Your task to perform on an android device: toggle javascript in the chrome app Image 0: 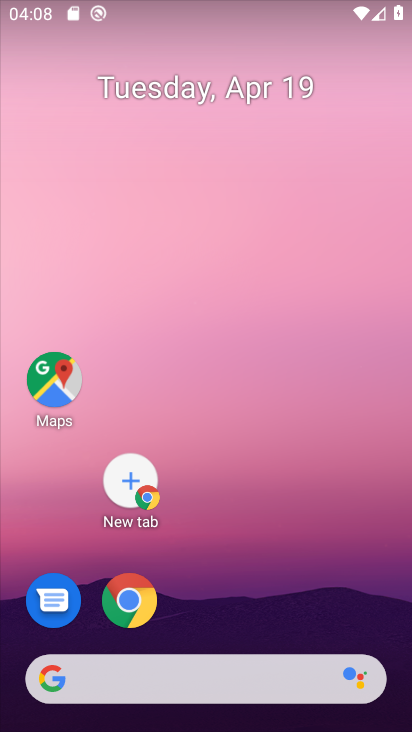
Step 0: click (139, 621)
Your task to perform on an android device: toggle javascript in the chrome app Image 1: 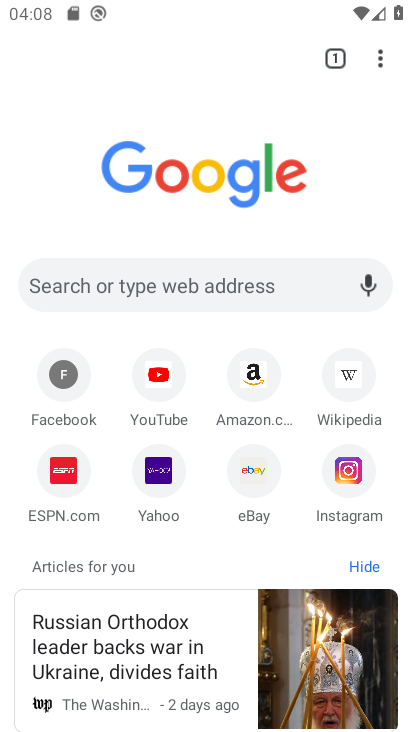
Step 1: click (373, 65)
Your task to perform on an android device: toggle javascript in the chrome app Image 2: 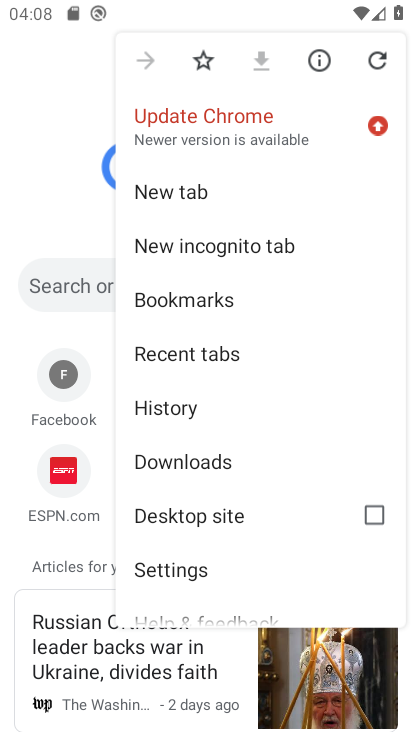
Step 2: click (160, 573)
Your task to perform on an android device: toggle javascript in the chrome app Image 3: 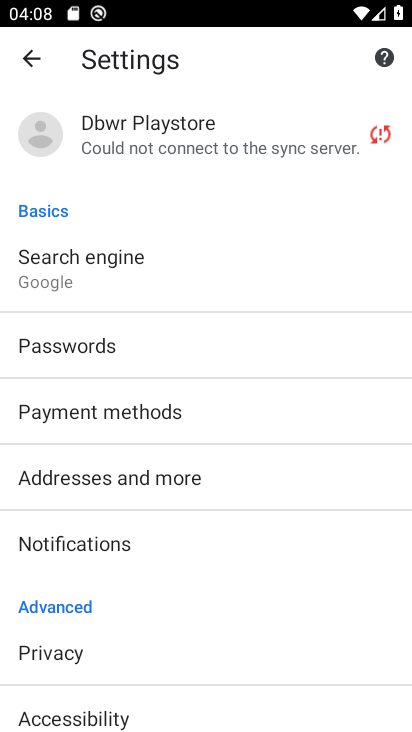
Step 3: drag from (58, 646) to (229, 26)
Your task to perform on an android device: toggle javascript in the chrome app Image 4: 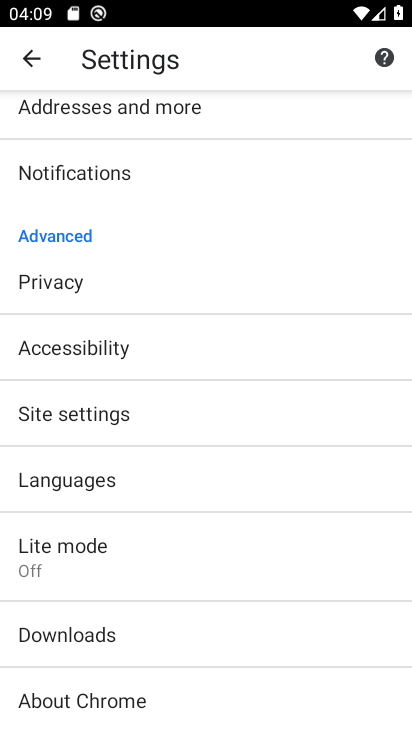
Step 4: drag from (118, 649) to (171, 261)
Your task to perform on an android device: toggle javascript in the chrome app Image 5: 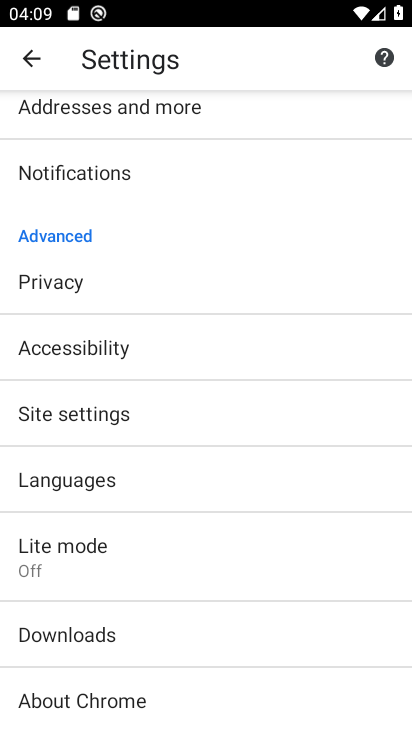
Step 5: click (53, 427)
Your task to perform on an android device: toggle javascript in the chrome app Image 6: 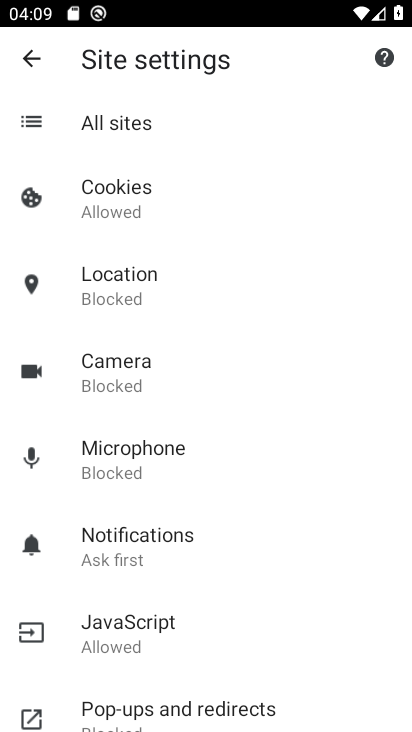
Step 6: click (163, 618)
Your task to perform on an android device: toggle javascript in the chrome app Image 7: 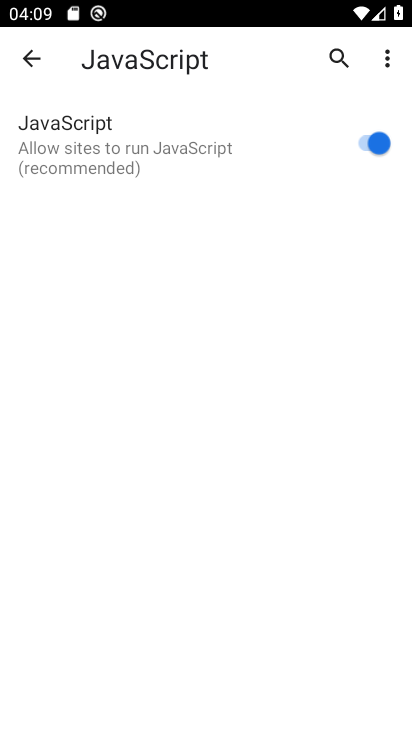
Step 7: click (361, 139)
Your task to perform on an android device: toggle javascript in the chrome app Image 8: 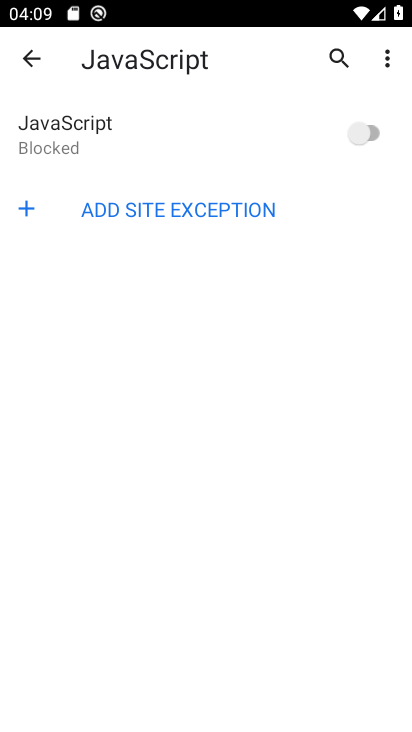
Step 8: click (361, 139)
Your task to perform on an android device: toggle javascript in the chrome app Image 9: 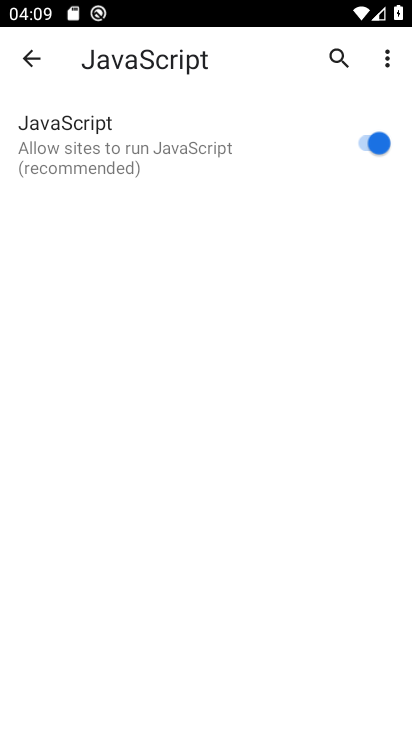
Step 9: task complete